Your task to perform on an android device: remove spam from my inbox in the gmail app Image 0: 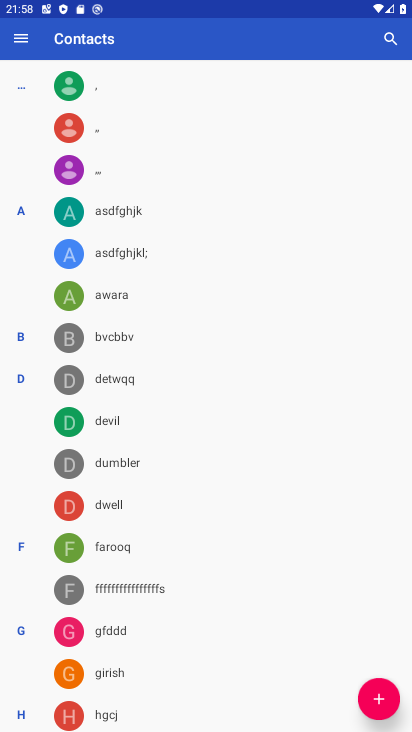
Step 0: press home button
Your task to perform on an android device: remove spam from my inbox in the gmail app Image 1: 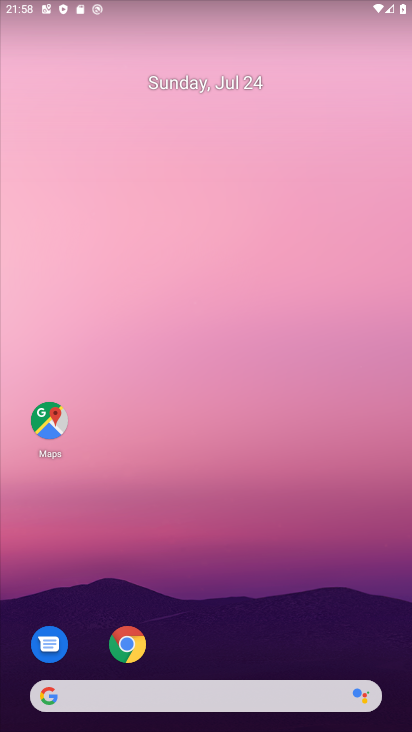
Step 1: drag from (379, 659) to (312, 34)
Your task to perform on an android device: remove spam from my inbox in the gmail app Image 2: 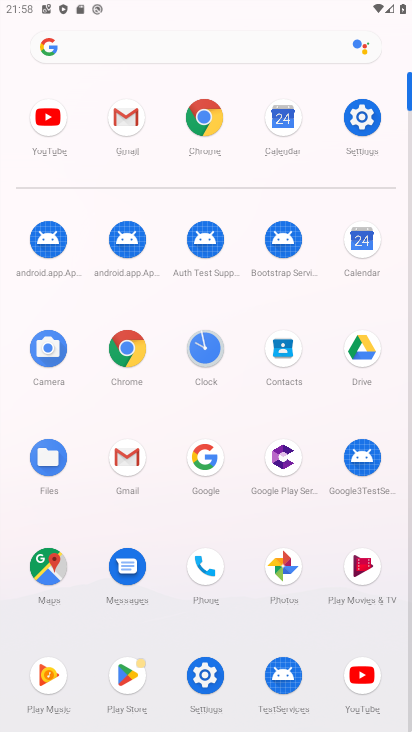
Step 2: click (126, 457)
Your task to perform on an android device: remove spam from my inbox in the gmail app Image 3: 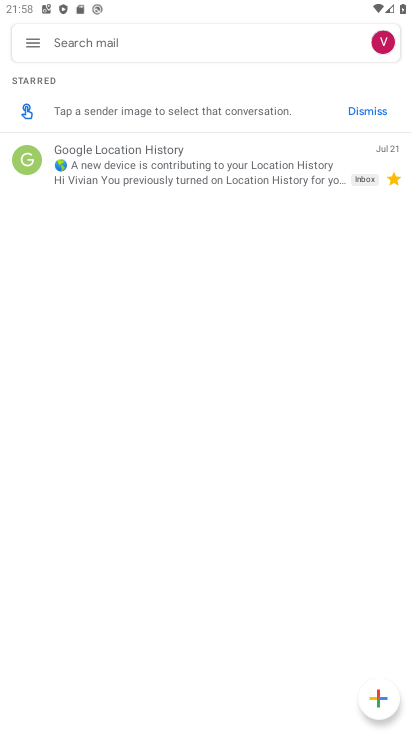
Step 3: click (35, 42)
Your task to perform on an android device: remove spam from my inbox in the gmail app Image 4: 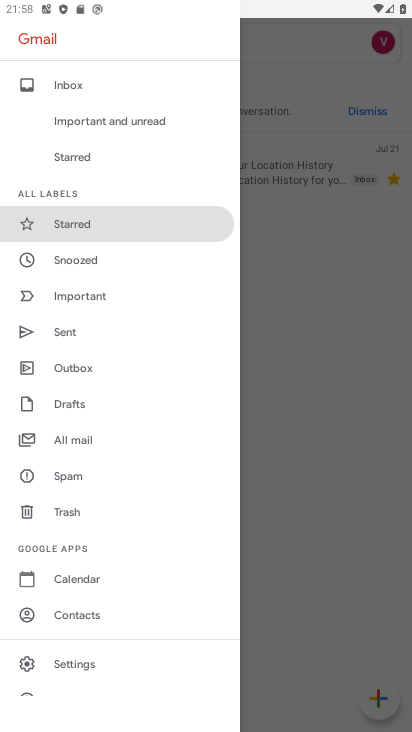
Step 4: click (76, 479)
Your task to perform on an android device: remove spam from my inbox in the gmail app Image 5: 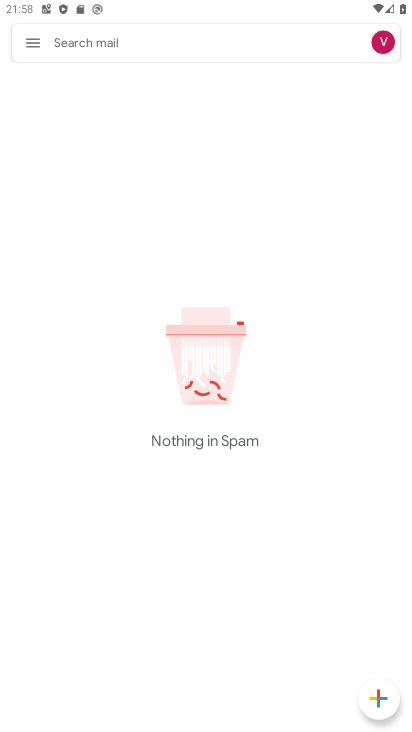
Step 5: task complete